Your task to perform on an android device: Open calendar and show me the fourth week of next month Image 0: 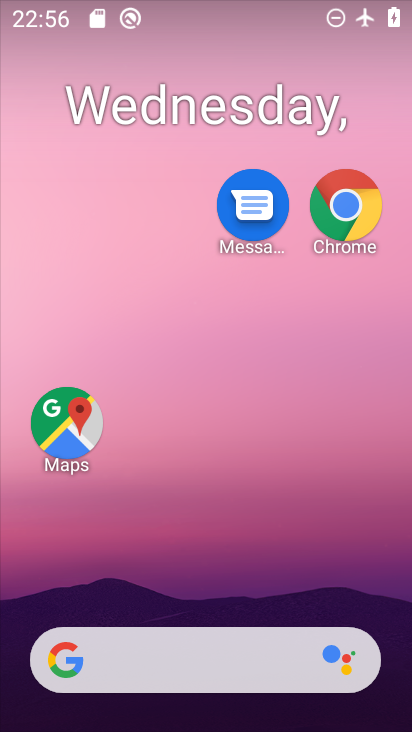
Step 0: click (205, 447)
Your task to perform on an android device: Open calendar and show me the fourth week of next month Image 1: 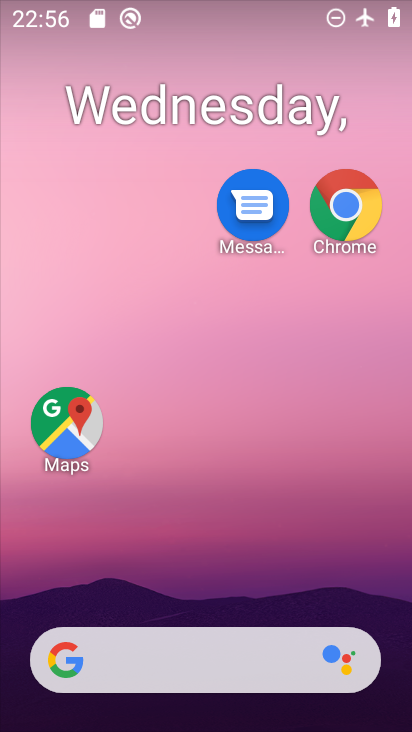
Step 1: drag from (205, 517) to (322, 81)
Your task to perform on an android device: Open calendar and show me the fourth week of next month Image 2: 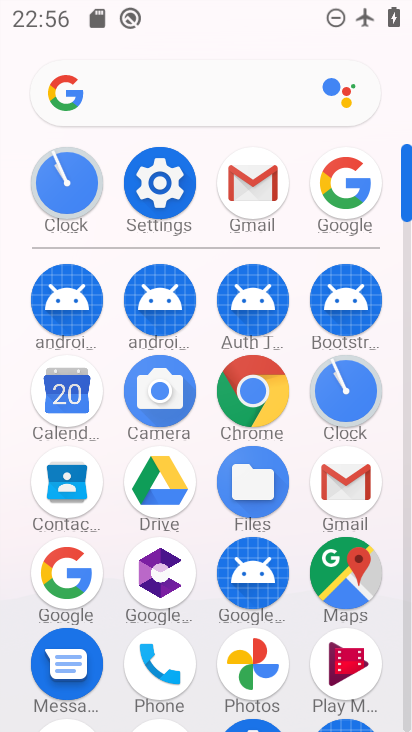
Step 2: click (79, 388)
Your task to perform on an android device: Open calendar and show me the fourth week of next month Image 3: 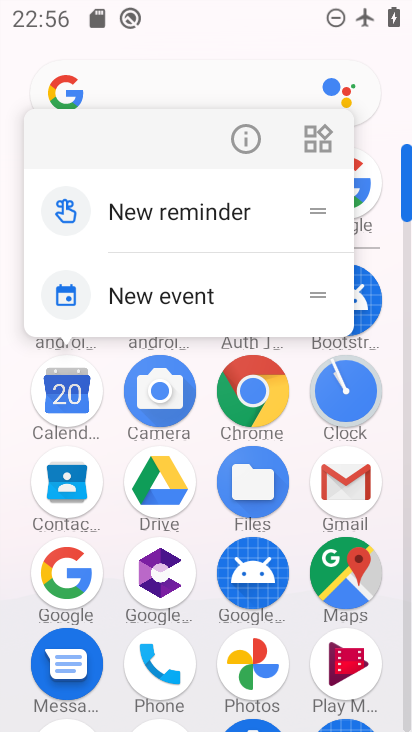
Step 3: click (245, 153)
Your task to perform on an android device: Open calendar and show me the fourth week of next month Image 4: 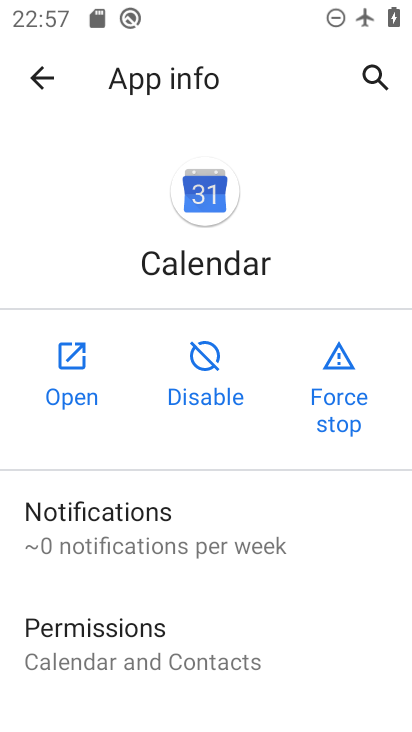
Step 4: click (65, 391)
Your task to perform on an android device: Open calendar and show me the fourth week of next month Image 5: 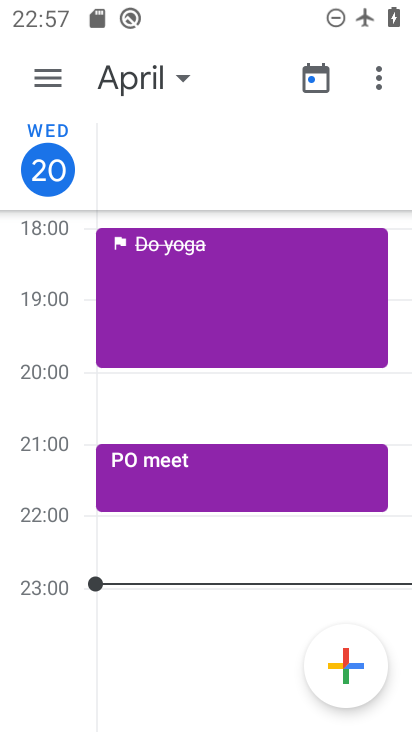
Step 5: click (144, 78)
Your task to perform on an android device: Open calendar and show me the fourth week of next month Image 6: 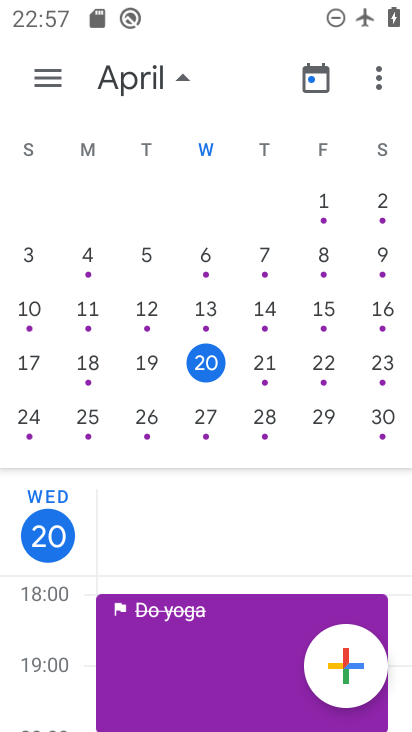
Step 6: drag from (339, 312) to (4, 311)
Your task to perform on an android device: Open calendar and show me the fourth week of next month Image 7: 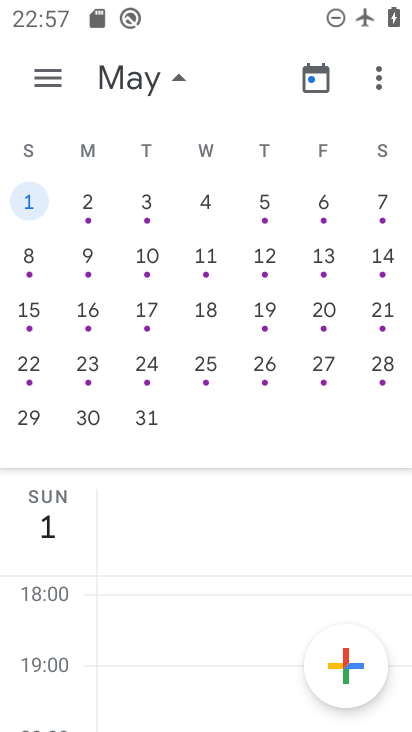
Step 7: click (212, 365)
Your task to perform on an android device: Open calendar and show me the fourth week of next month Image 8: 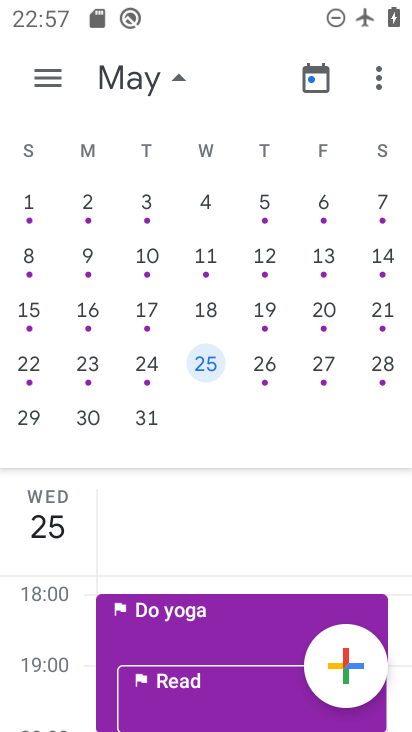
Step 8: task complete